Your task to perform on an android device: Go to Google maps Image 0: 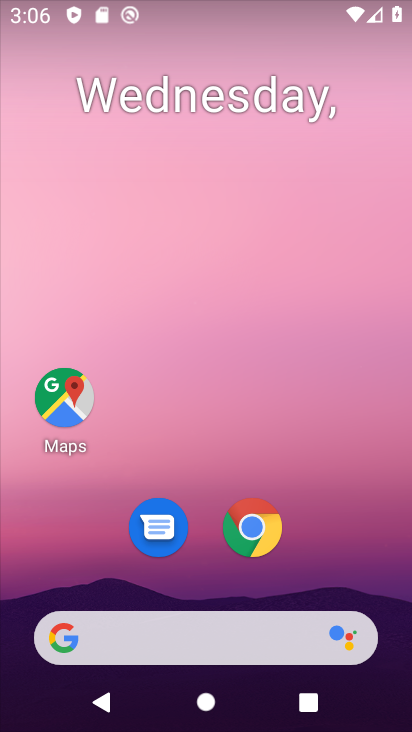
Step 0: click (61, 414)
Your task to perform on an android device: Go to Google maps Image 1: 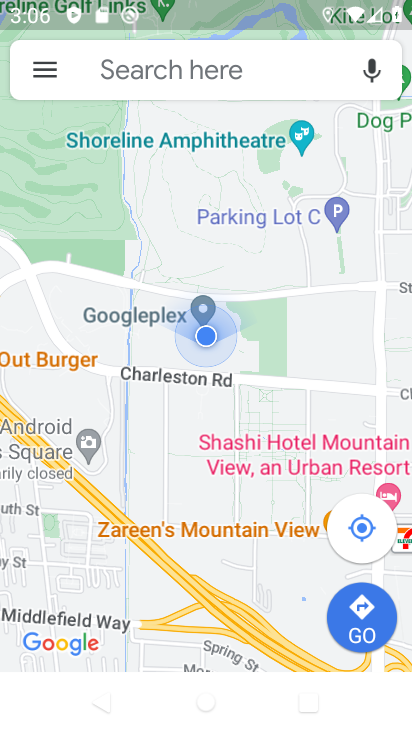
Step 1: task complete